Your task to perform on an android device: Turn off the flashlight Image 0: 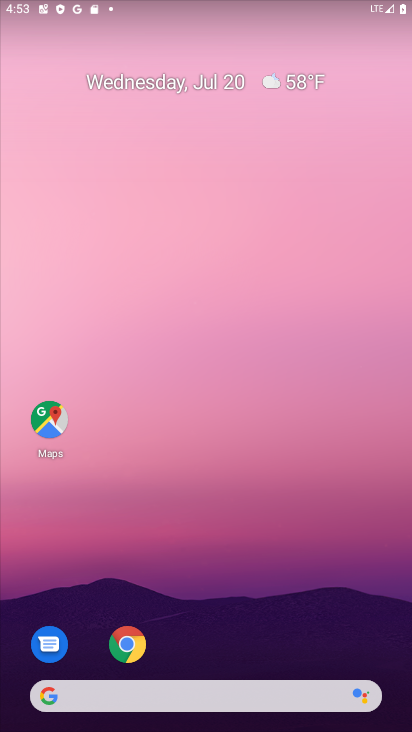
Step 0: press home button
Your task to perform on an android device: Turn off the flashlight Image 1: 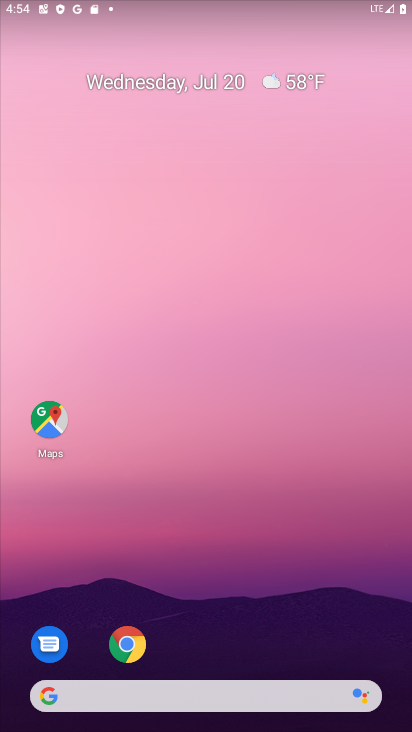
Step 1: task complete